Your task to perform on an android device: turn off improve location accuracy Image 0: 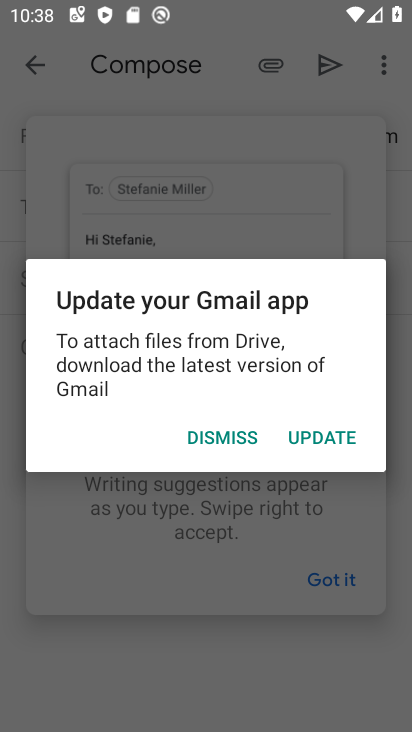
Step 0: press home button
Your task to perform on an android device: turn off improve location accuracy Image 1: 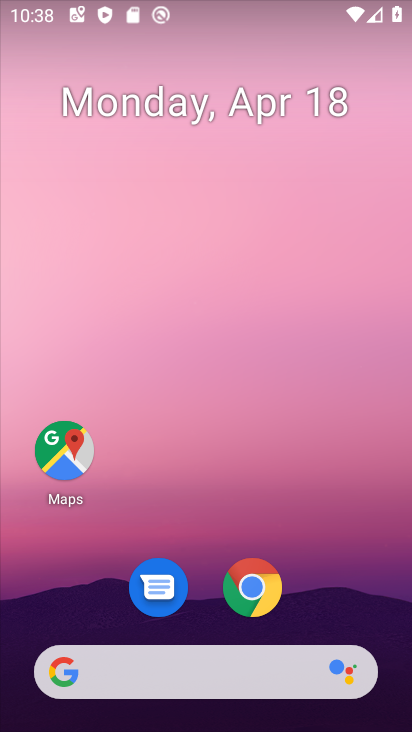
Step 1: drag from (347, 522) to (383, 174)
Your task to perform on an android device: turn off improve location accuracy Image 2: 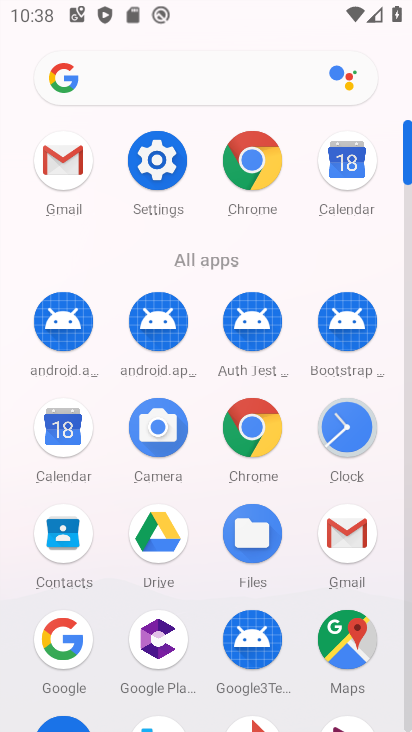
Step 2: click (165, 165)
Your task to perform on an android device: turn off improve location accuracy Image 3: 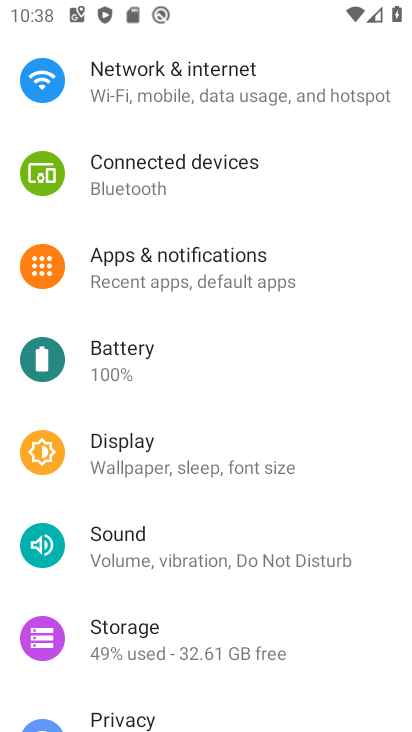
Step 3: drag from (274, 583) to (294, 329)
Your task to perform on an android device: turn off improve location accuracy Image 4: 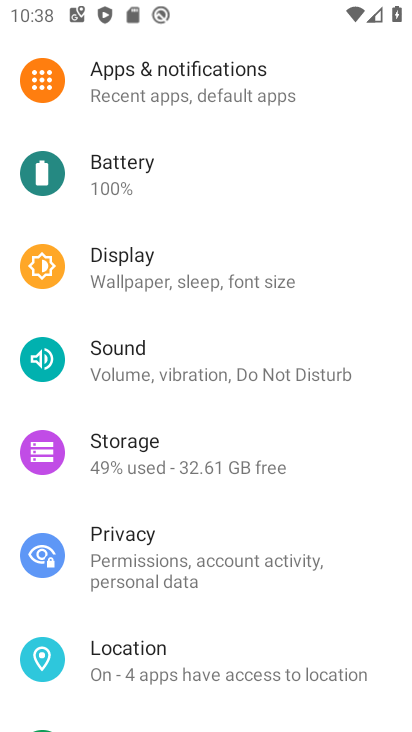
Step 4: click (165, 642)
Your task to perform on an android device: turn off improve location accuracy Image 5: 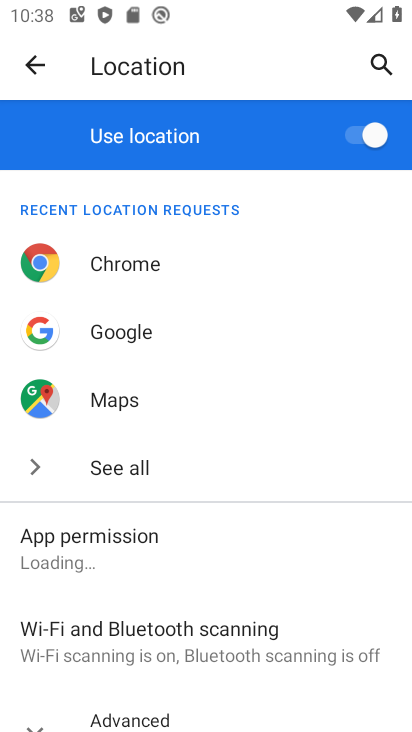
Step 5: drag from (360, 607) to (361, 288)
Your task to perform on an android device: turn off improve location accuracy Image 6: 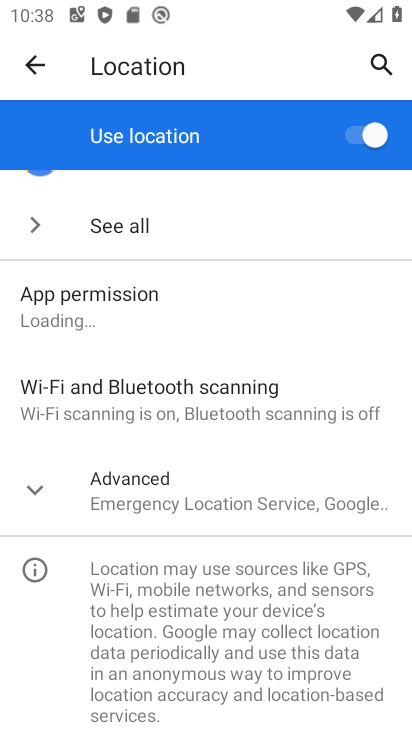
Step 6: click (227, 507)
Your task to perform on an android device: turn off improve location accuracy Image 7: 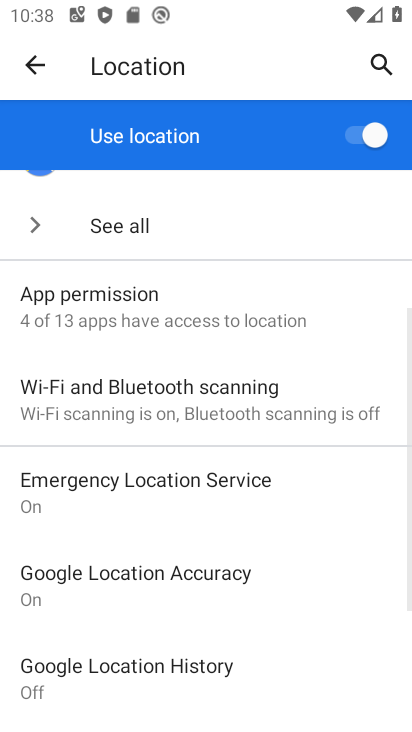
Step 7: click (186, 592)
Your task to perform on an android device: turn off improve location accuracy Image 8: 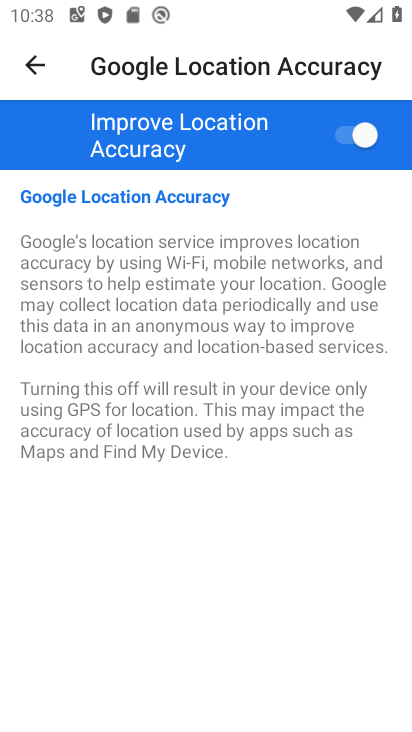
Step 8: click (339, 133)
Your task to perform on an android device: turn off improve location accuracy Image 9: 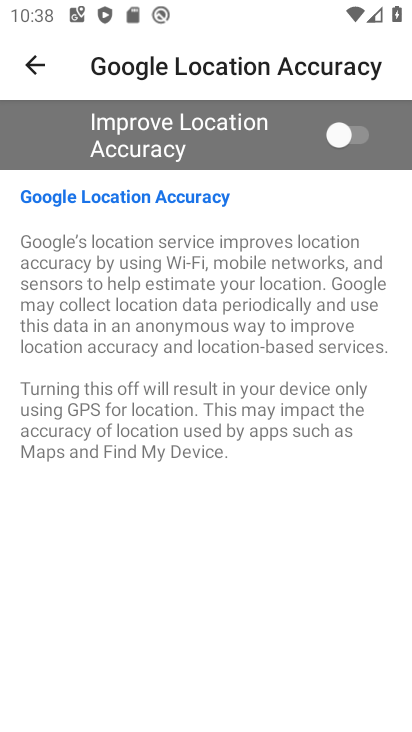
Step 9: task complete